Your task to perform on an android device: set an alarm Image 0: 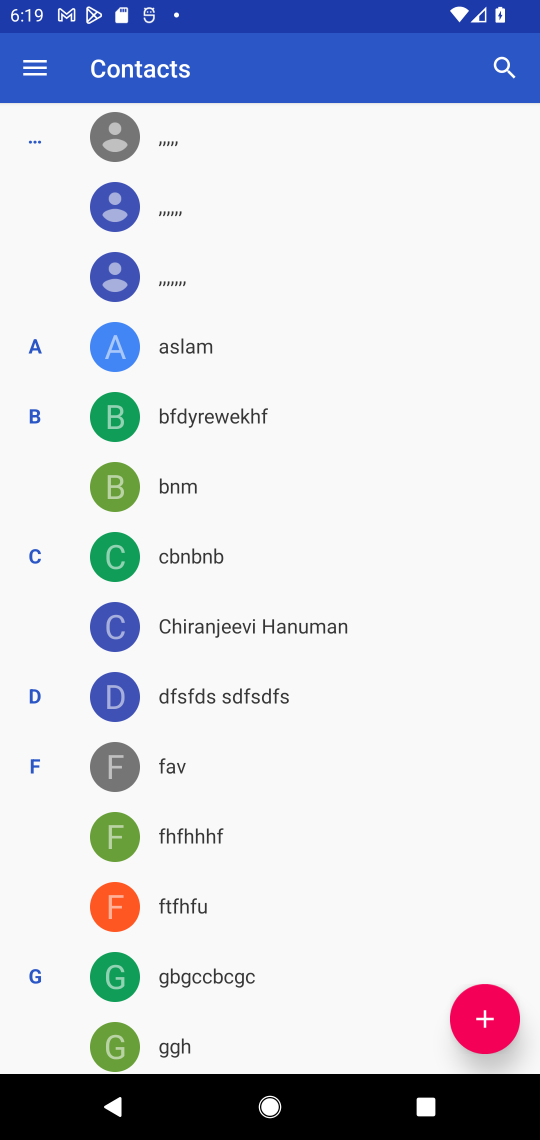
Step 0: press home button
Your task to perform on an android device: set an alarm Image 1: 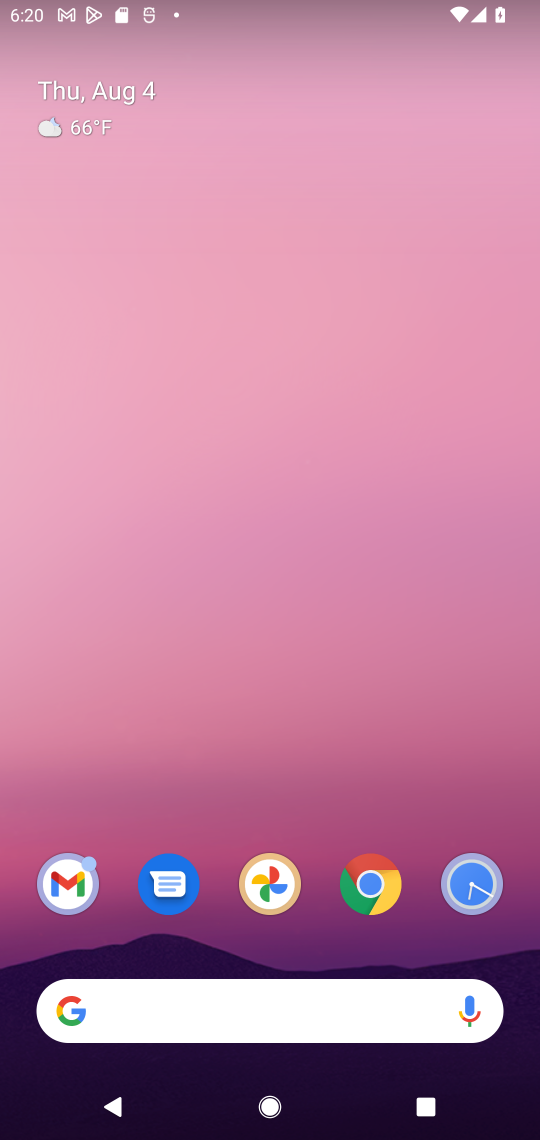
Step 1: click (308, 964)
Your task to perform on an android device: set an alarm Image 2: 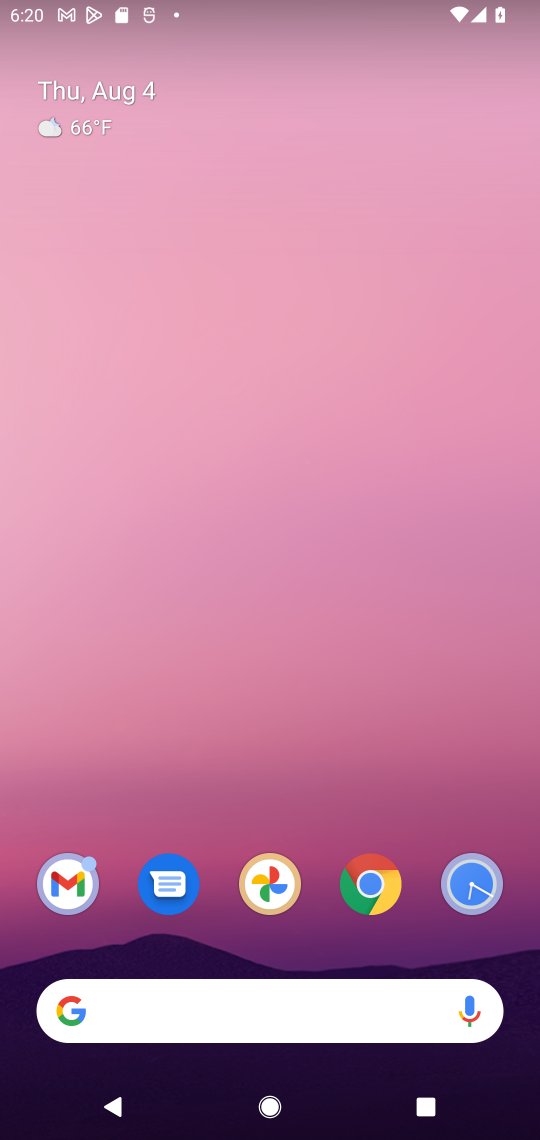
Step 2: click (457, 905)
Your task to perform on an android device: set an alarm Image 3: 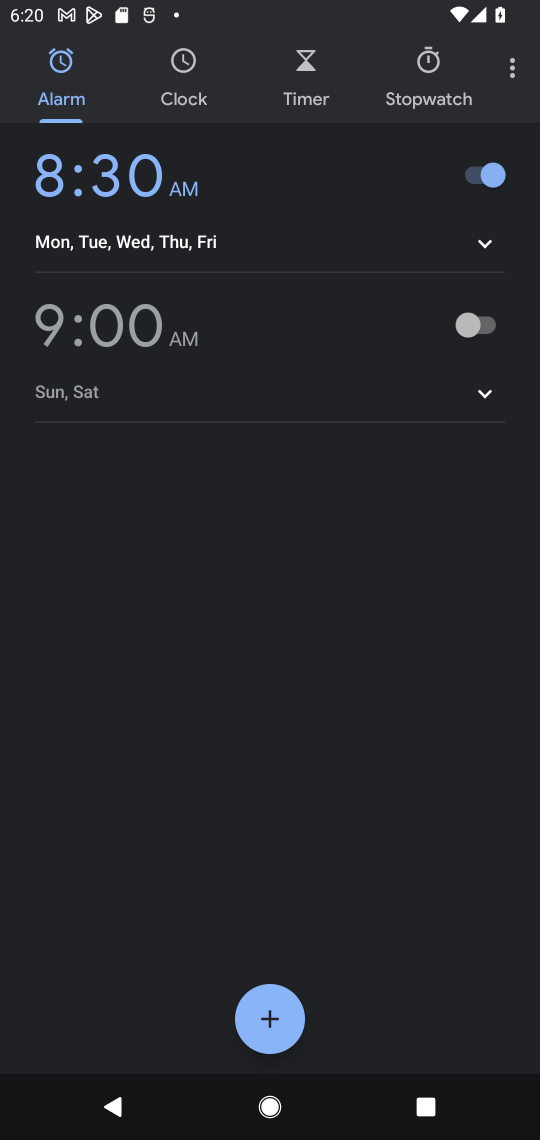
Step 3: task complete